Your task to perform on an android device: toggle priority inbox in the gmail app Image 0: 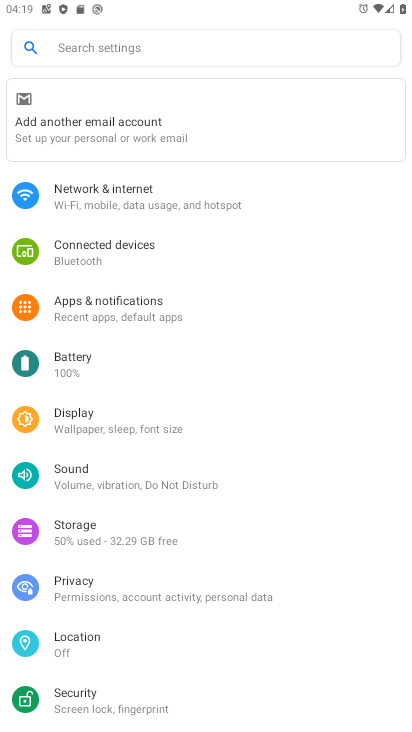
Step 0: press home button
Your task to perform on an android device: toggle priority inbox in the gmail app Image 1: 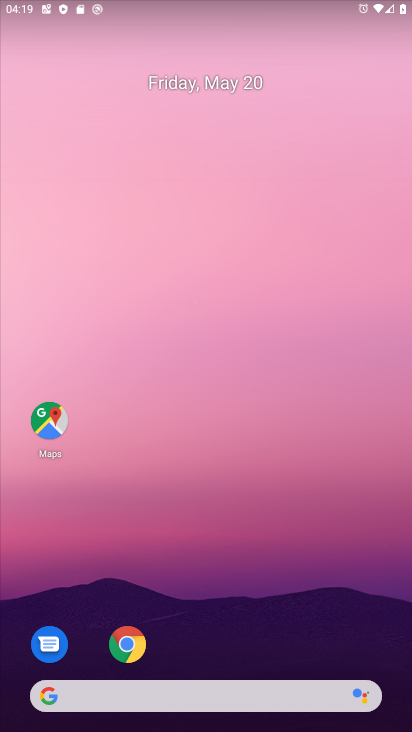
Step 1: drag from (282, 585) to (225, 68)
Your task to perform on an android device: toggle priority inbox in the gmail app Image 2: 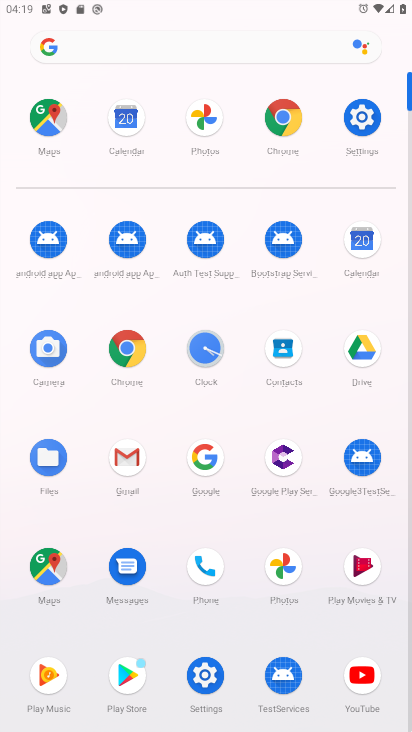
Step 2: click (124, 485)
Your task to perform on an android device: toggle priority inbox in the gmail app Image 3: 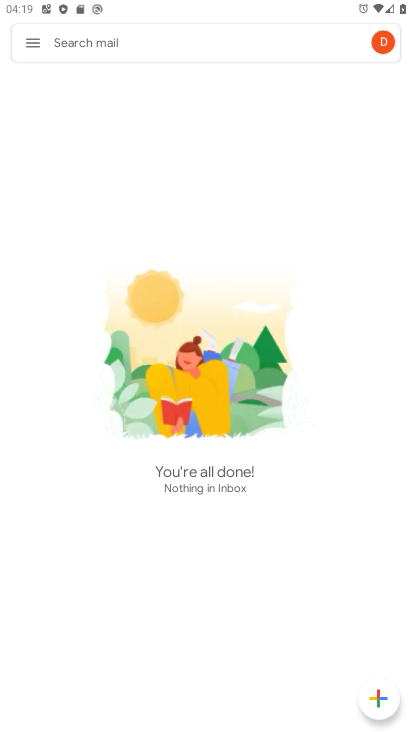
Step 3: click (40, 46)
Your task to perform on an android device: toggle priority inbox in the gmail app Image 4: 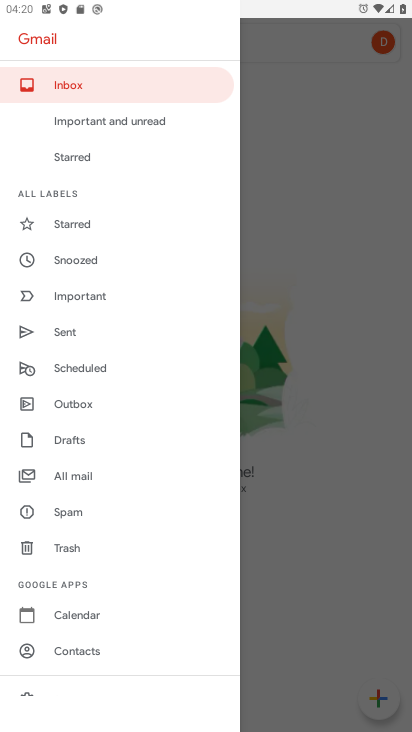
Step 4: drag from (87, 637) to (64, 475)
Your task to perform on an android device: toggle priority inbox in the gmail app Image 5: 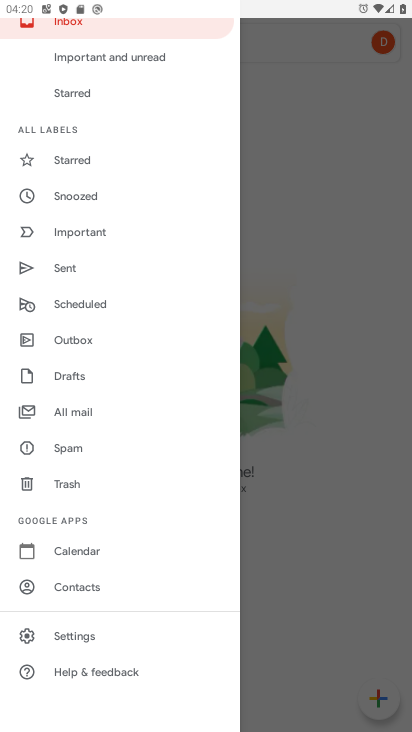
Step 5: click (63, 639)
Your task to perform on an android device: toggle priority inbox in the gmail app Image 6: 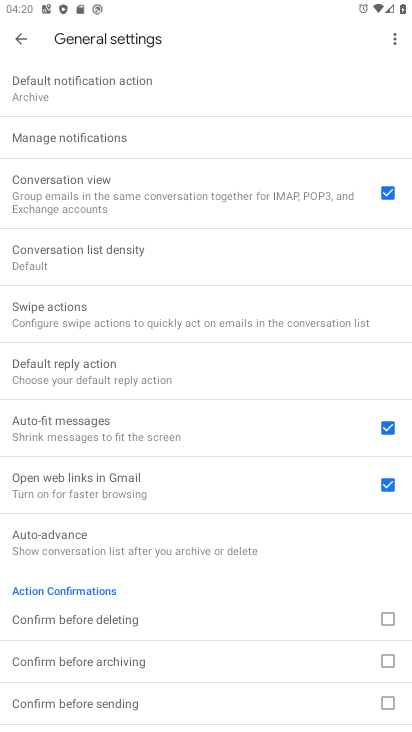
Step 6: task complete